Your task to perform on an android device: Turn on the flashlight Image 0: 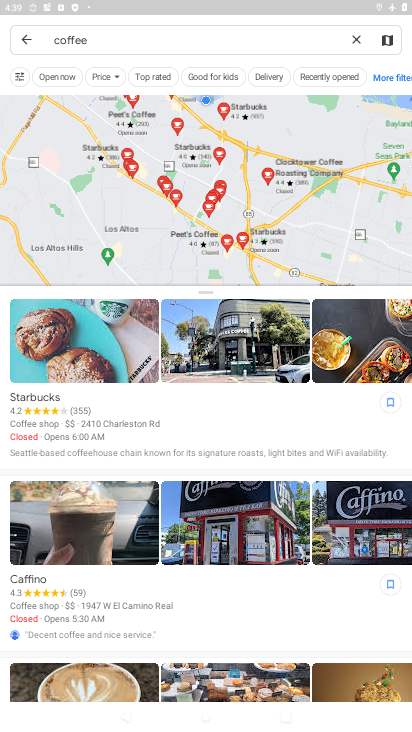
Step 0: press home button
Your task to perform on an android device: Turn on the flashlight Image 1: 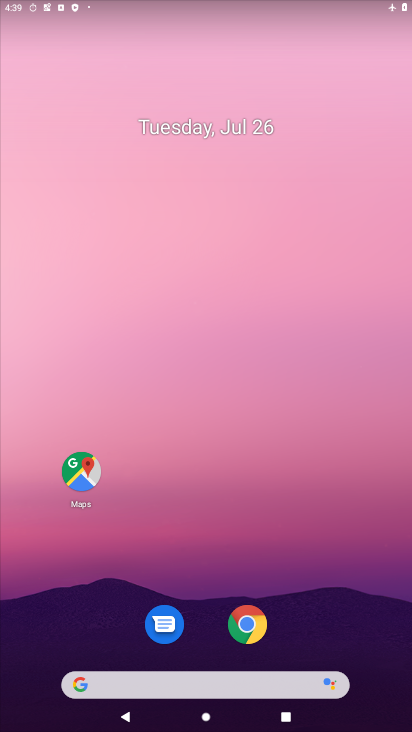
Step 1: task complete